Your task to perform on an android device: turn on wifi Image 0: 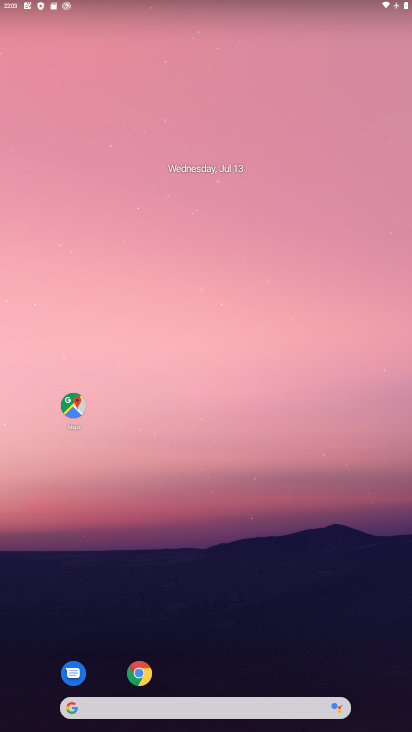
Step 0: drag from (187, 662) to (216, 164)
Your task to perform on an android device: turn on wifi Image 1: 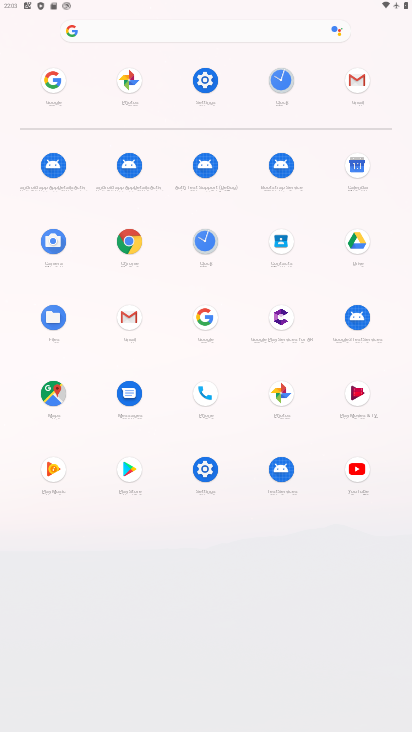
Step 1: click (198, 98)
Your task to perform on an android device: turn on wifi Image 2: 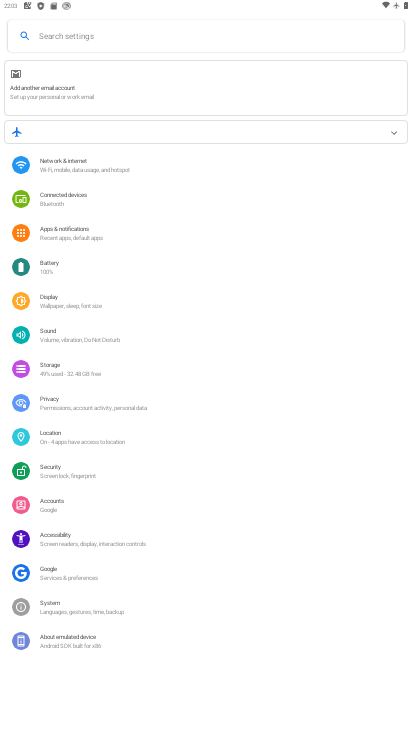
Step 2: click (99, 152)
Your task to perform on an android device: turn on wifi Image 3: 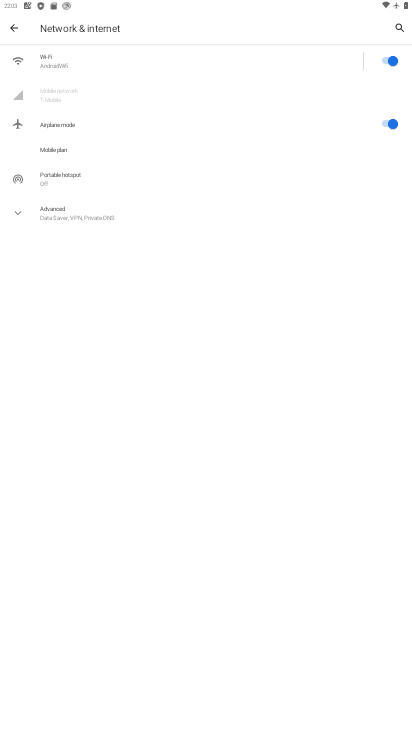
Step 3: task complete